Your task to perform on an android device: open a bookmark in the chrome app Image 0: 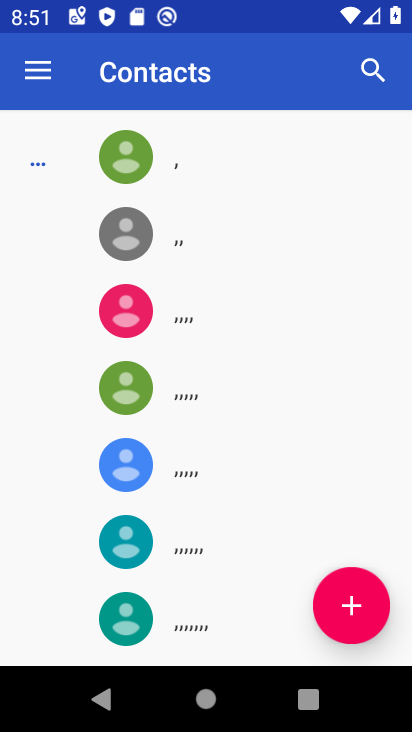
Step 0: press home button
Your task to perform on an android device: open a bookmark in the chrome app Image 1: 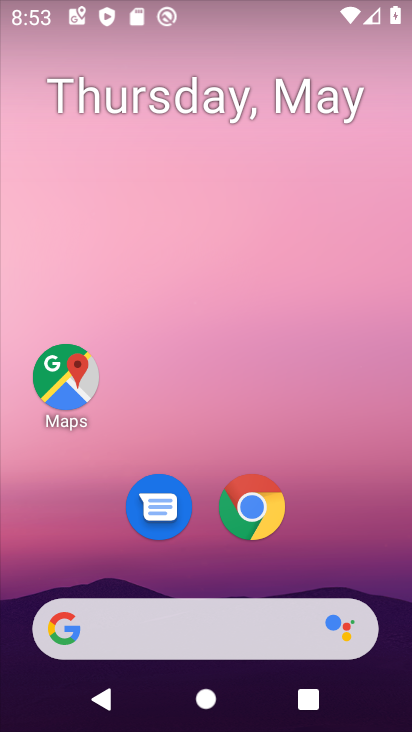
Step 1: drag from (255, 680) to (234, 339)
Your task to perform on an android device: open a bookmark in the chrome app Image 2: 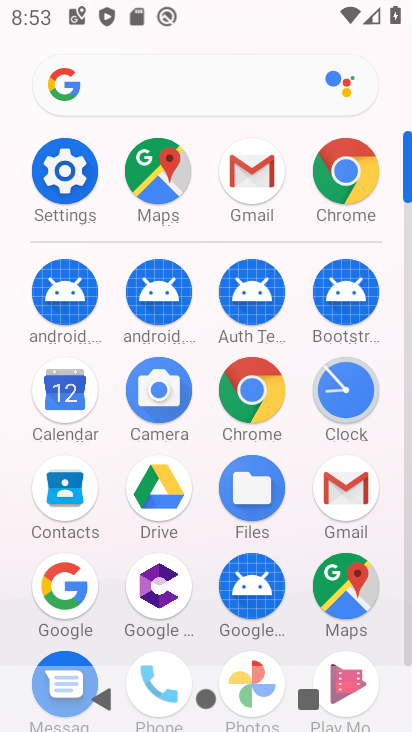
Step 2: click (328, 178)
Your task to perform on an android device: open a bookmark in the chrome app Image 3: 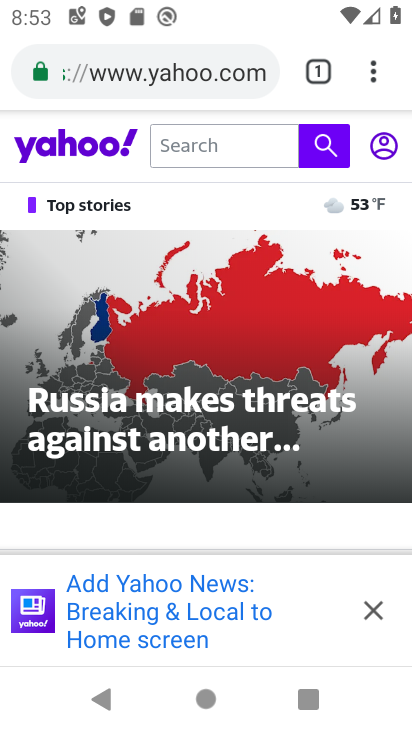
Step 3: click (363, 84)
Your task to perform on an android device: open a bookmark in the chrome app Image 4: 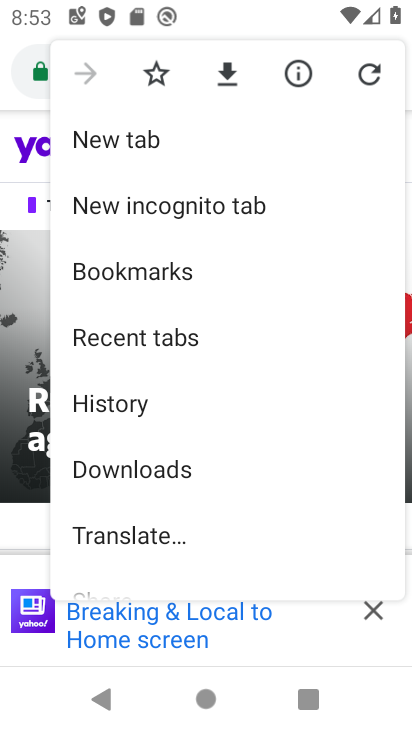
Step 4: click (203, 267)
Your task to perform on an android device: open a bookmark in the chrome app Image 5: 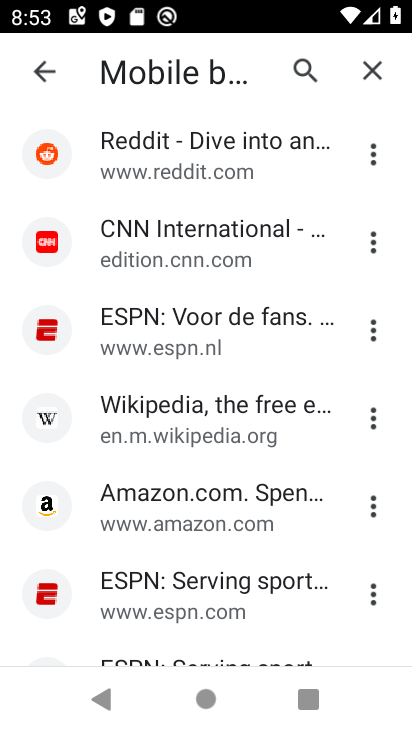
Step 5: click (159, 423)
Your task to perform on an android device: open a bookmark in the chrome app Image 6: 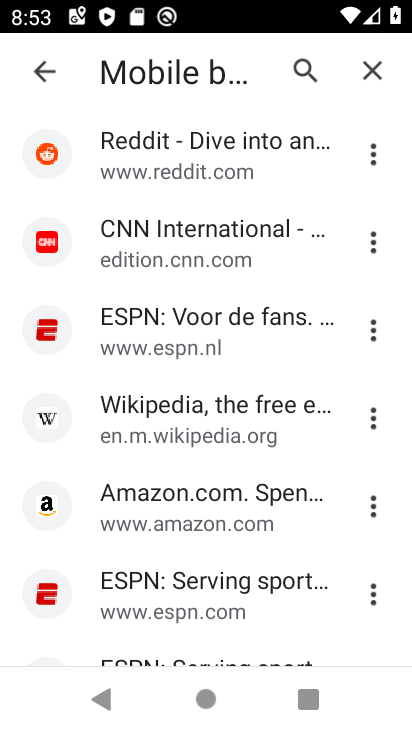
Step 6: click (159, 423)
Your task to perform on an android device: open a bookmark in the chrome app Image 7: 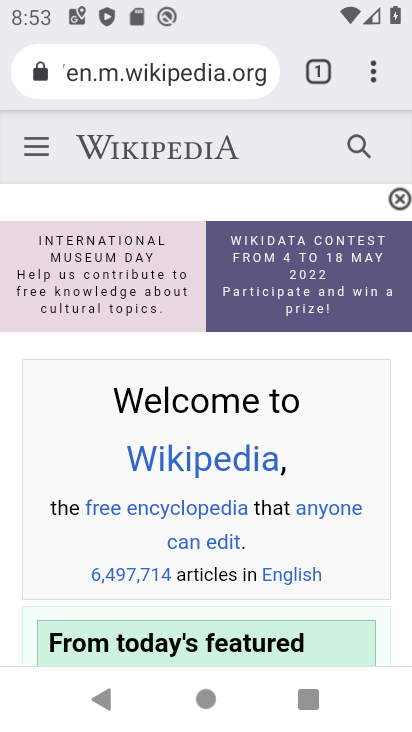
Step 7: task complete